Your task to perform on an android device: Open Google Maps Image 0: 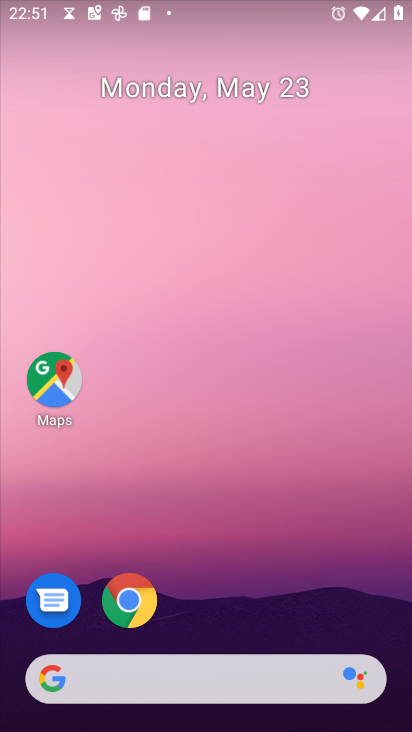
Step 0: drag from (204, 728) to (198, 102)
Your task to perform on an android device: Open Google Maps Image 1: 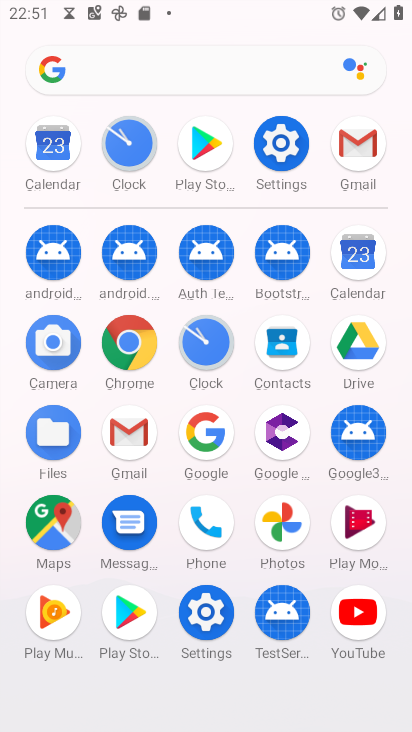
Step 1: click (45, 525)
Your task to perform on an android device: Open Google Maps Image 2: 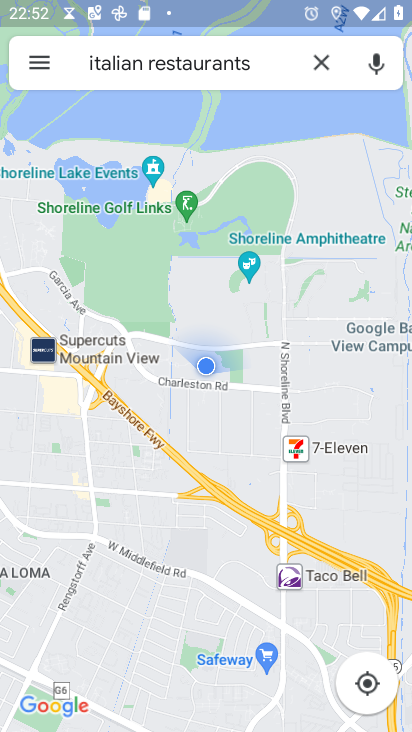
Step 2: task complete